Your task to perform on an android device: turn off location history Image 0: 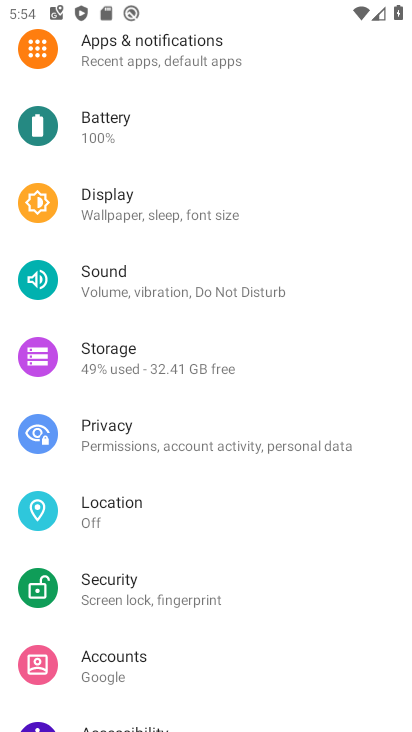
Step 0: click (133, 520)
Your task to perform on an android device: turn off location history Image 1: 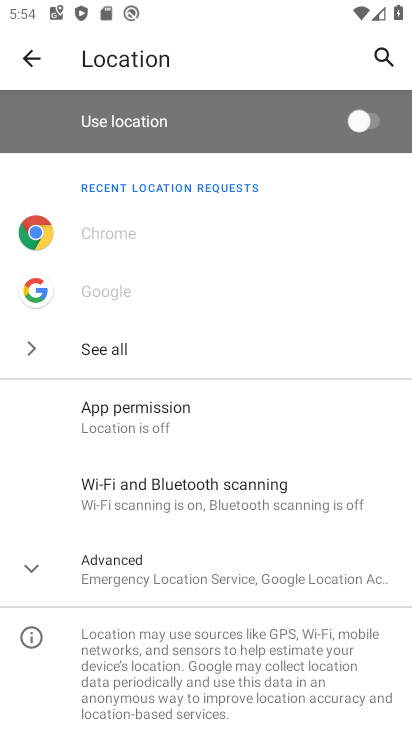
Step 1: click (117, 575)
Your task to perform on an android device: turn off location history Image 2: 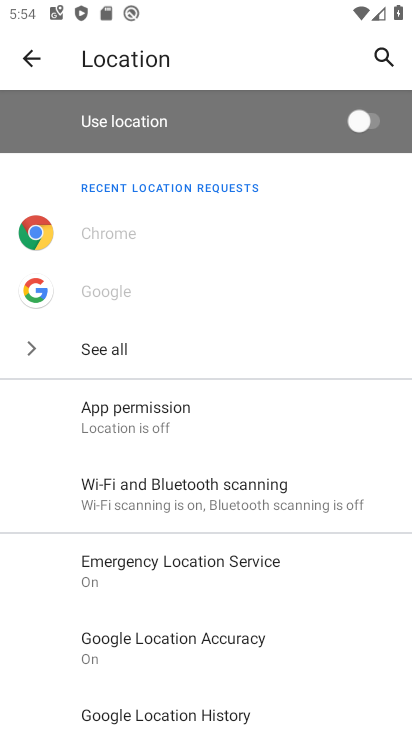
Step 2: drag from (153, 618) to (201, 371)
Your task to perform on an android device: turn off location history Image 3: 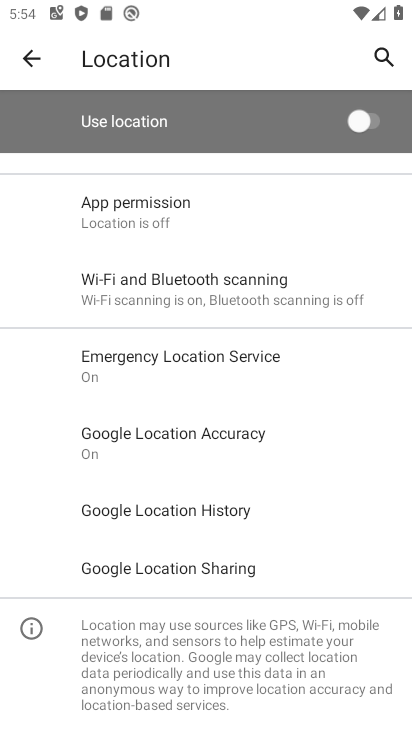
Step 3: click (160, 512)
Your task to perform on an android device: turn off location history Image 4: 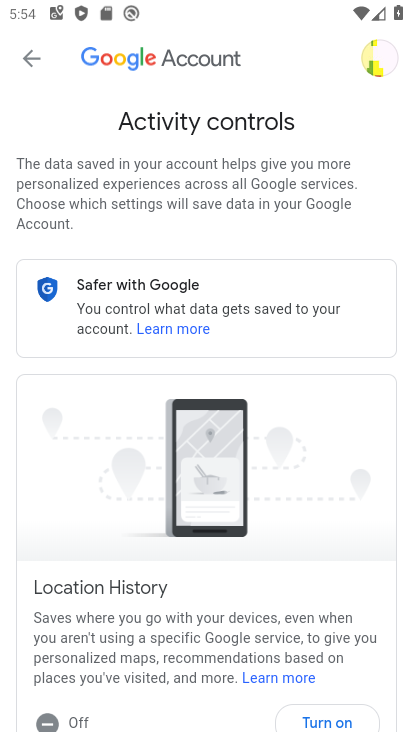
Step 4: task complete